Your task to perform on an android device: change your default location settings in chrome Image 0: 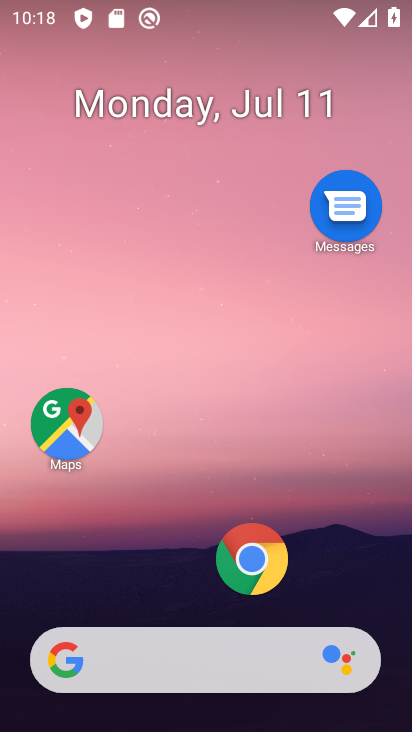
Step 0: drag from (380, 578) to (388, 192)
Your task to perform on an android device: change your default location settings in chrome Image 1: 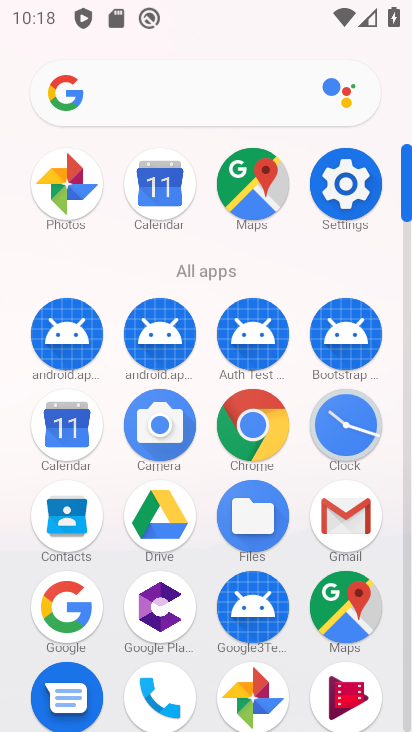
Step 1: click (262, 417)
Your task to perform on an android device: change your default location settings in chrome Image 2: 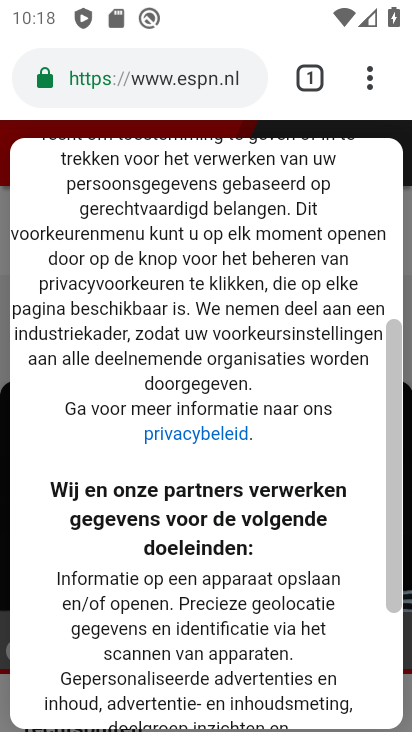
Step 2: click (372, 79)
Your task to perform on an android device: change your default location settings in chrome Image 3: 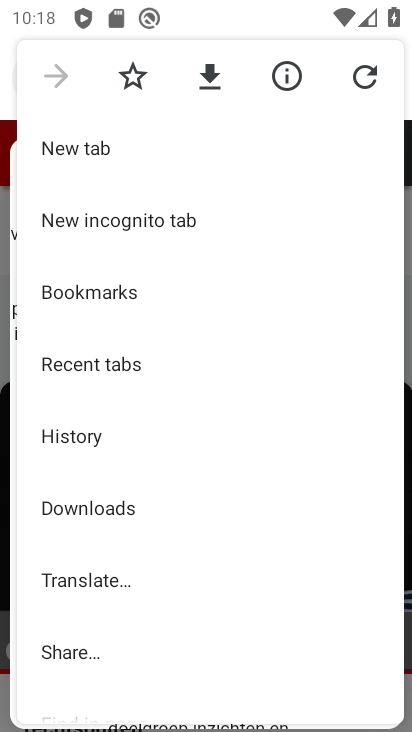
Step 3: drag from (297, 424) to (313, 290)
Your task to perform on an android device: change your default location settings in chrome Image 4: 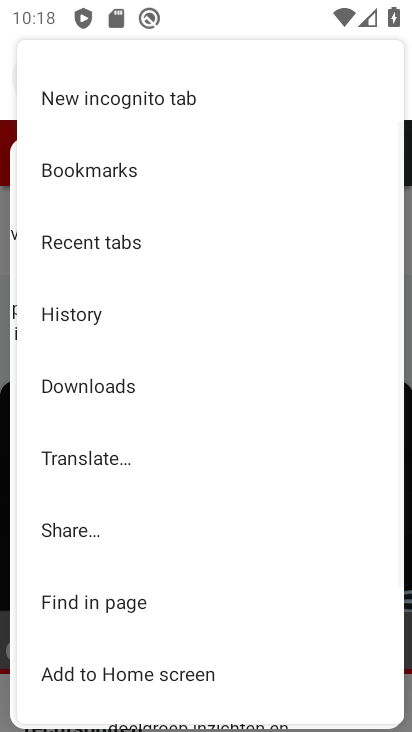
Step 4: drag from (292, 439) to (309, 294)
Your task to perform on an android device: change your default location settings in chrome Image 5: 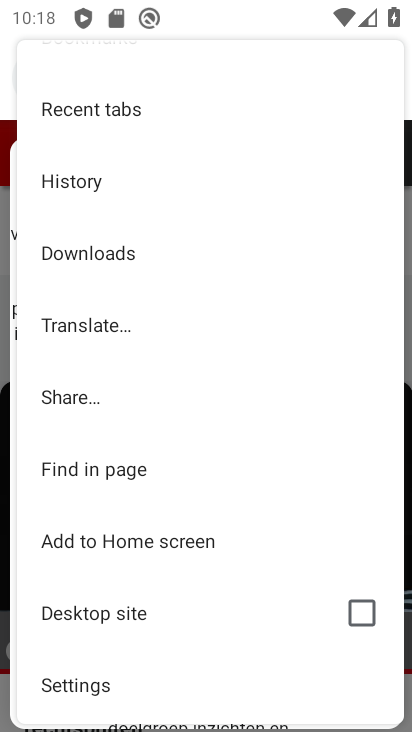
Step 5: drag from (296, 516) to (298, 302)
Your task to perform on an android device: change your default location settings in chrome Image 6: 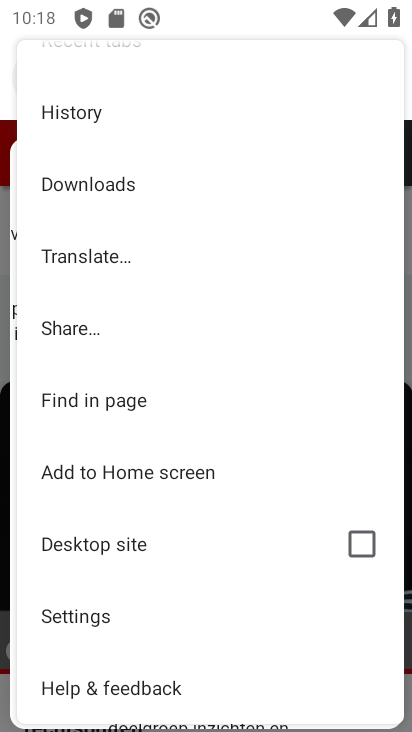
Step 6: click (94, 610)
Your task to perform on an android device: change your default location settings in chrome Image 7: 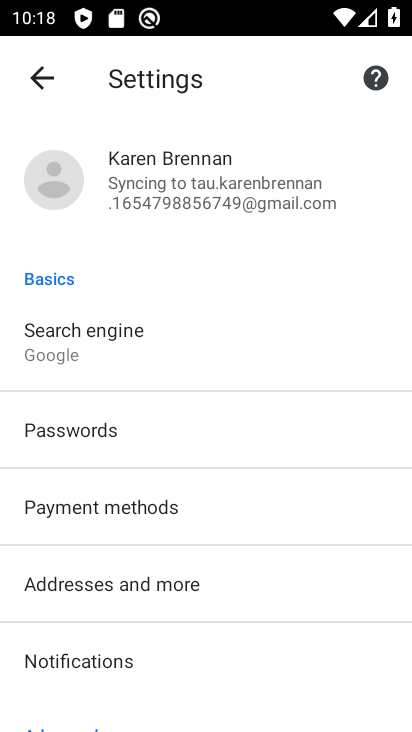
Step 7: drag from (268, 498) to (279, 410)
Your task to perform on an android device: change your default location settings in chrome Image 8: 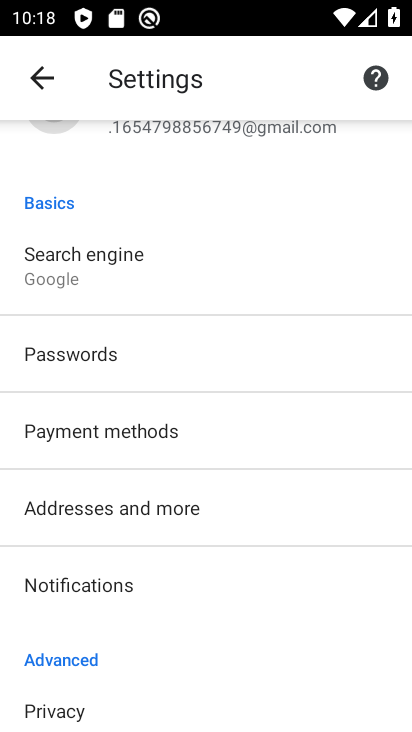
Step 8: drag from (273, 507) to (280, 387)
Your task to perform on an android device: change your default location settings in chrome Image 9: 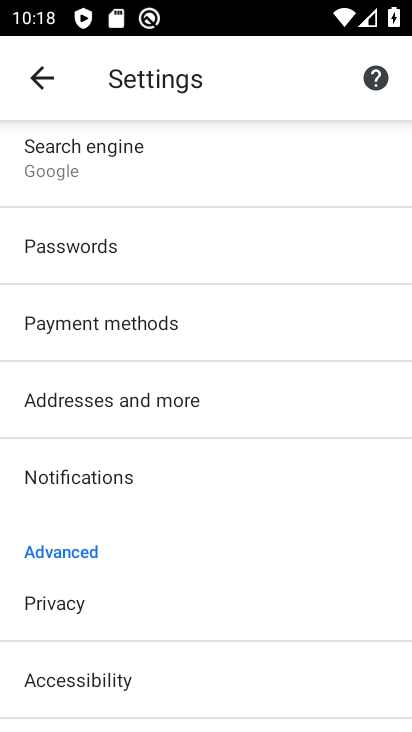
Step 9: drag from (271, 523) to (270, 354)
Your task to perform on an android device: change your default location settings in chrome Image 10: 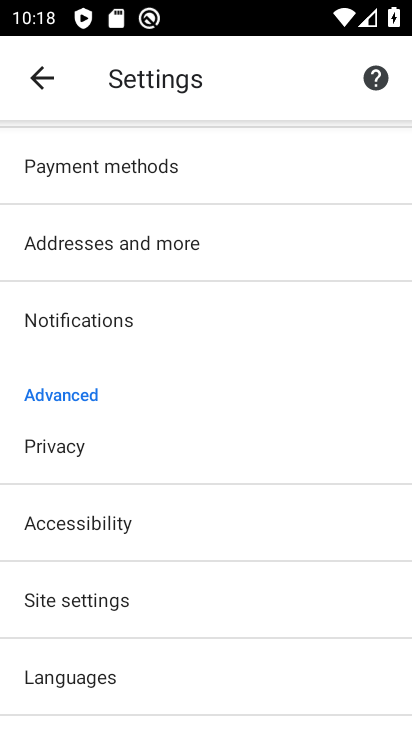
Step 10: drag from (262, 547) to (259, 442)
Your task to perform on an android device: change your default location settings in chrome Image 11: 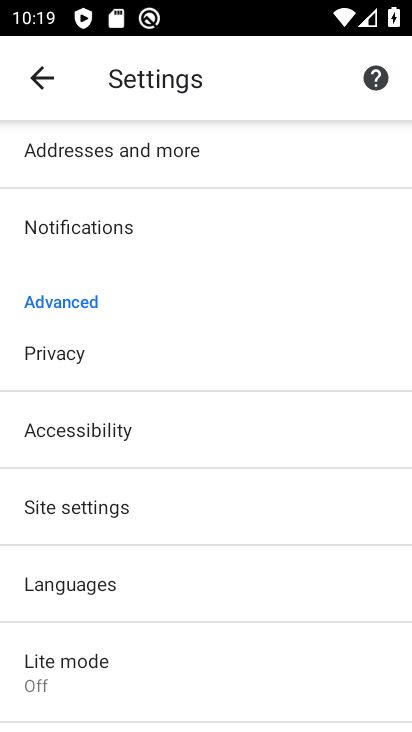
Step 11: click (217, 506)
Your task to perform on an android device: change your default location settings in chrome Image 12: 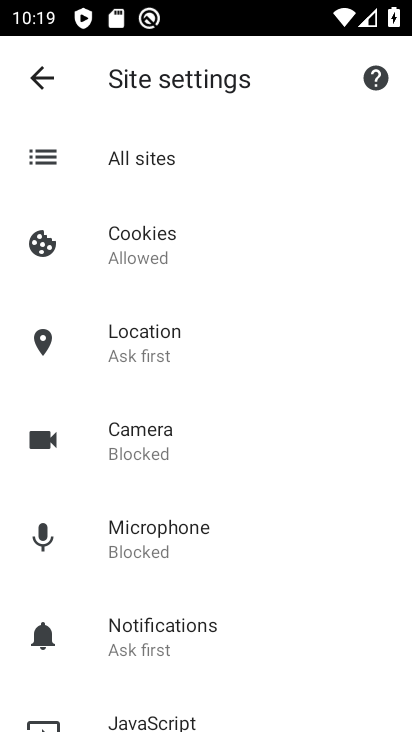
Step 12: click (219, 347)
Your task to perform on an android device: change your default location settings in chrome Image 13: 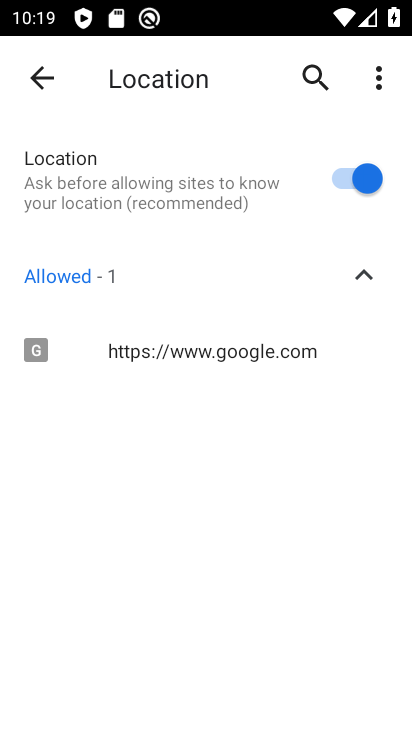
Step 13: click (369, 181)
Your task to perform on an android device: change your default location settings in chrome Image 14: 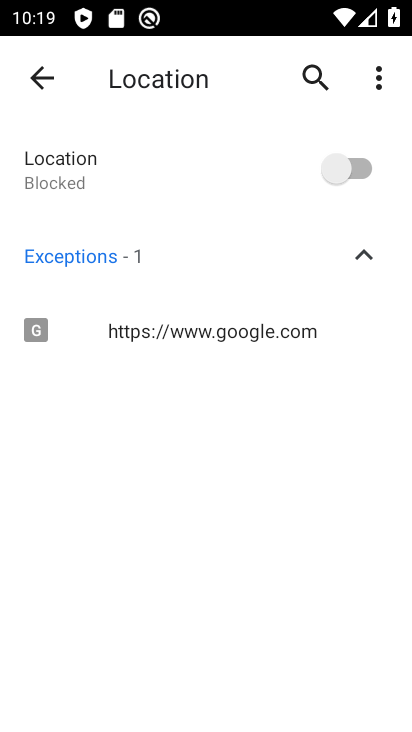
Step 14: task complete